Your task to perform on an android device: turn pop-ups off in chrome Image 0: 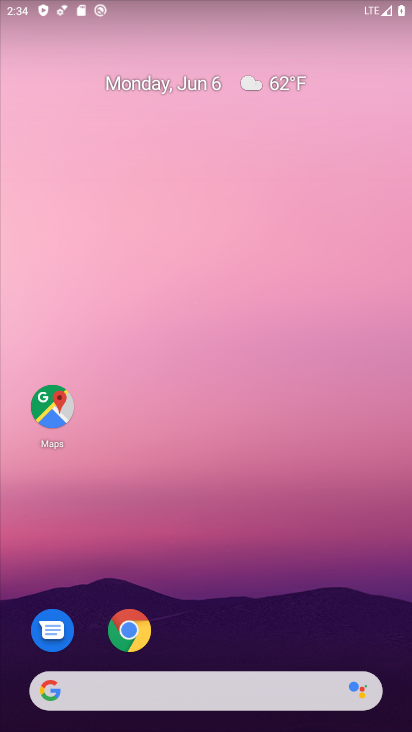
Step 0: press home button
Your task to perform on an android device: turn pop-ups off in chrome Image 1: 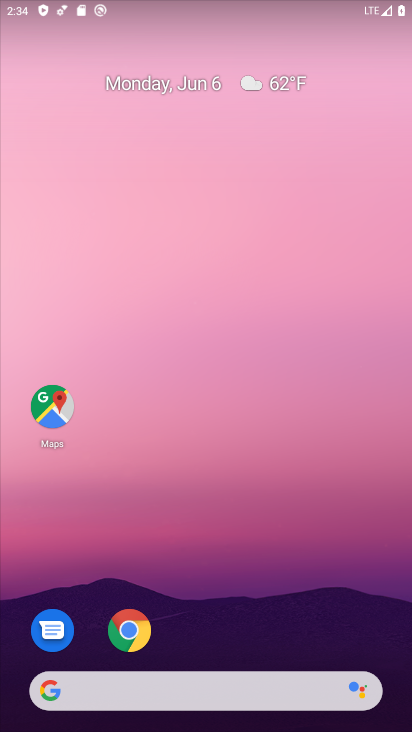
Step 1: click (149, 677)
Your task to perform on an android device: turn pop-ups off in chrome Image 2: 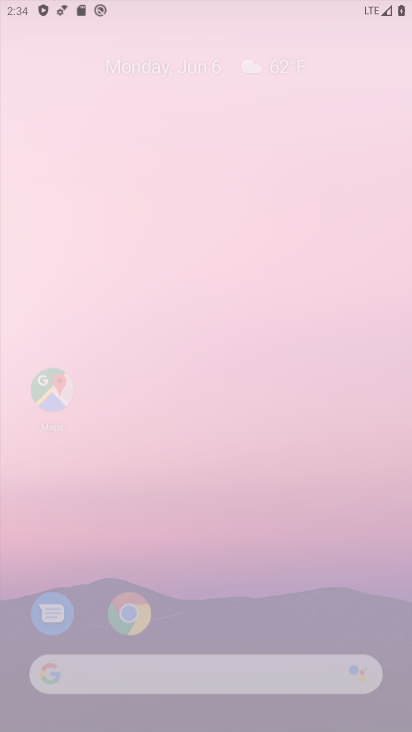
Step 2: click (140, 650)
Your task to perform on an android device: turn pop-ups off in chrome Image 3: 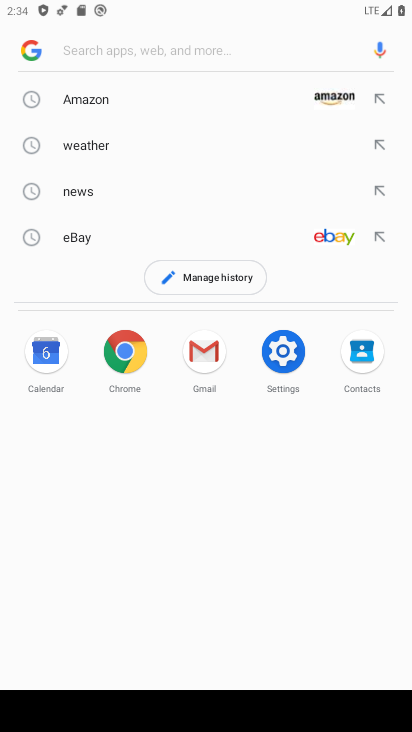
Step 3: press home button
Your task to perform on an android device: turn pop-ups off in chrome Image 4: 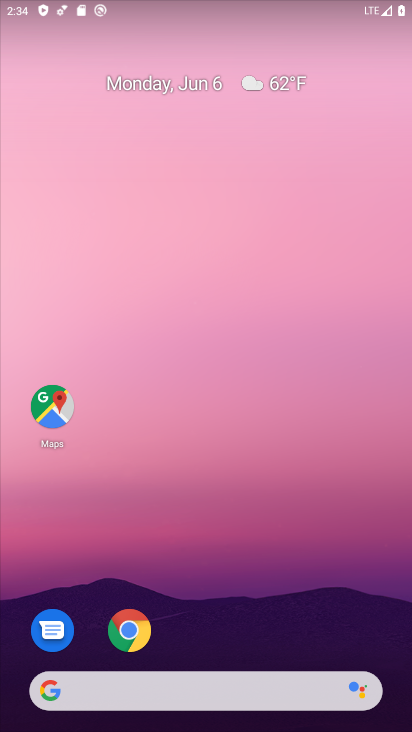
Step 4: click (125, 616)
Your task to perform on an android device: turn pop-ups off in chrome Image 5: 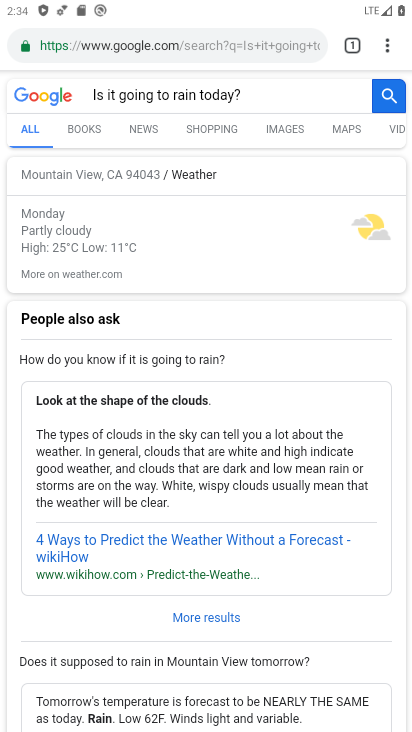
Step 5: drag from (393, 44) to (180, 572)
Your task to perform on an android device: turn pop-ups off in chrome Image 6: 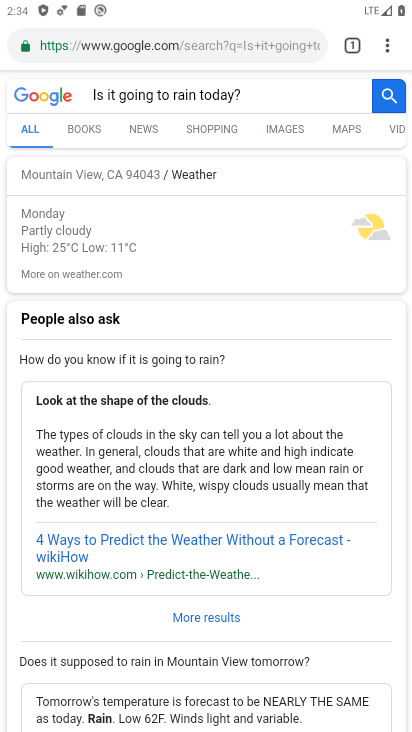
Step 6: drag from (395, 41) to (212, 516)
Your task to perform on an android device: turn pop-ups off in chrome Image 7: 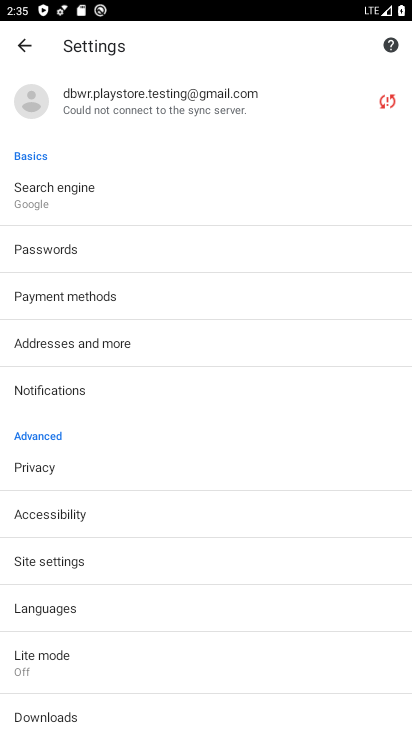
Step 7: click (126, 573)
Your task to perform on an android device: turn pop-ups off in chrome Image 8: 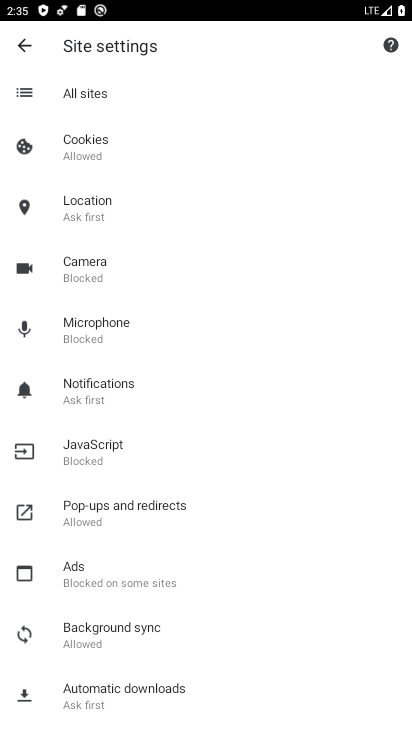
Step 8: click (130, 525)
Your task to perform on an android device: turn pop-ups off in chrome Image 9: 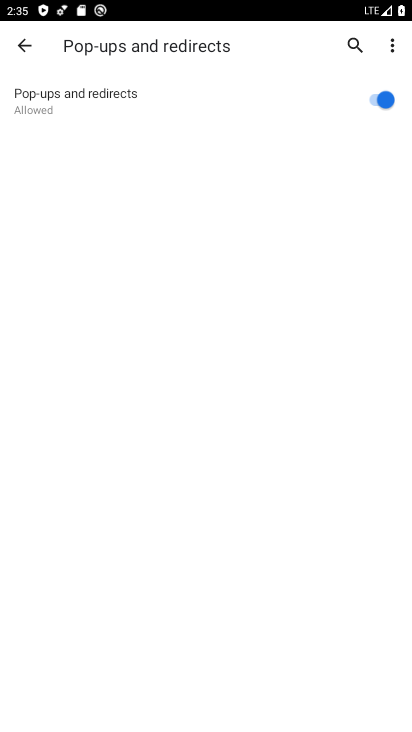
Step 9: click (277, 104)
Your task to perform on an android device: turn pop-ups off in chrome Image 10: 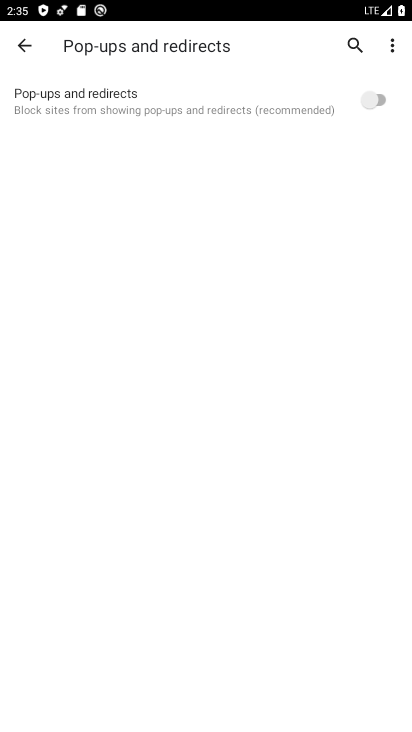
Step 10: task complete